Your task to perform on an android device: delete browsing data in the chrome app Image 0: 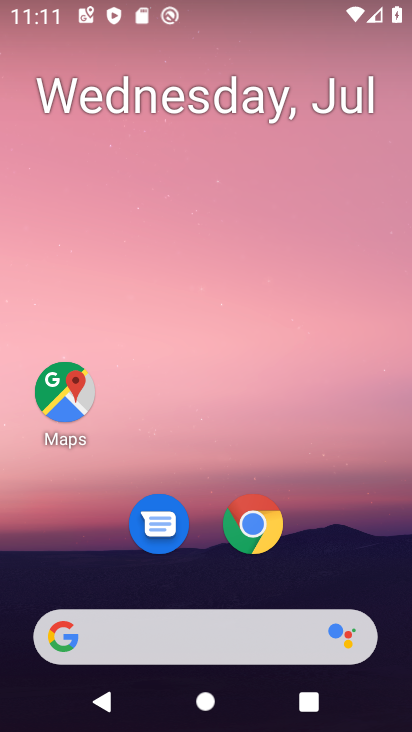
Step 0: click (243, 536)
Your task to perform on an android device: delete browsing data in the chrome app Image 1: 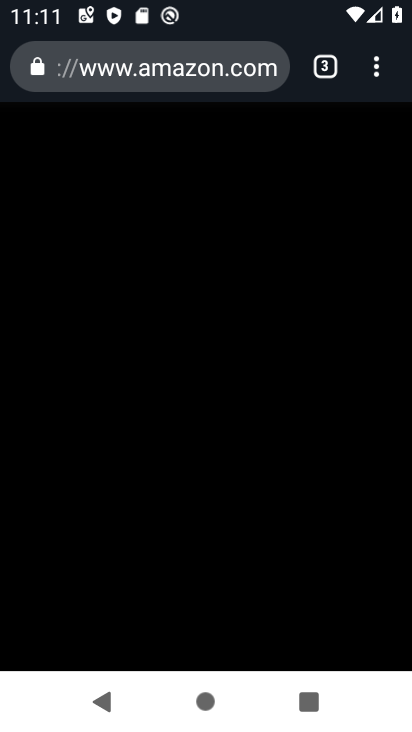
Step 1: drag from (371, 72) to (198, 533)
Your task to perform on an android device: delete browsing data in the chrome app Image 2: 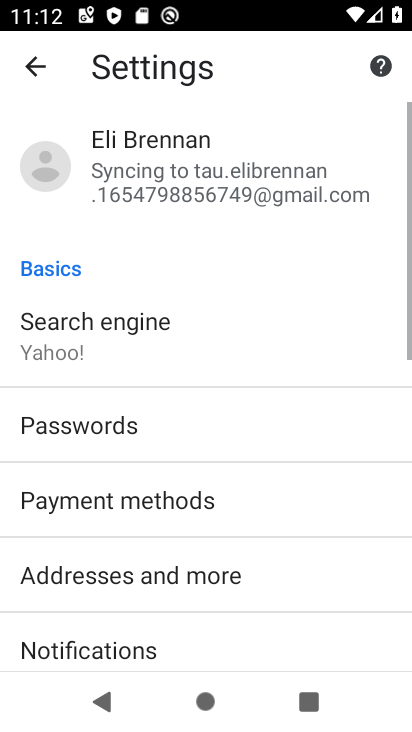
Step 2: drag from (158, 588) to (301, 45)
Your task to perform on an android device: delete browsing data in the chrome app Image 3: 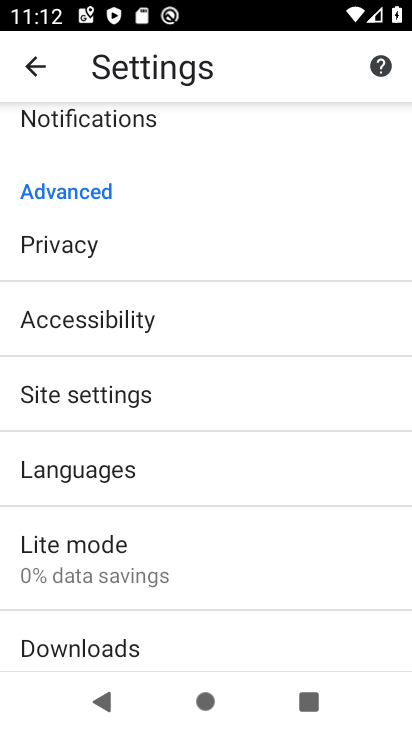
Step 3: click (85, 257)
Your task to perform on an android device: delete browsing data in the chrome app Image 4: 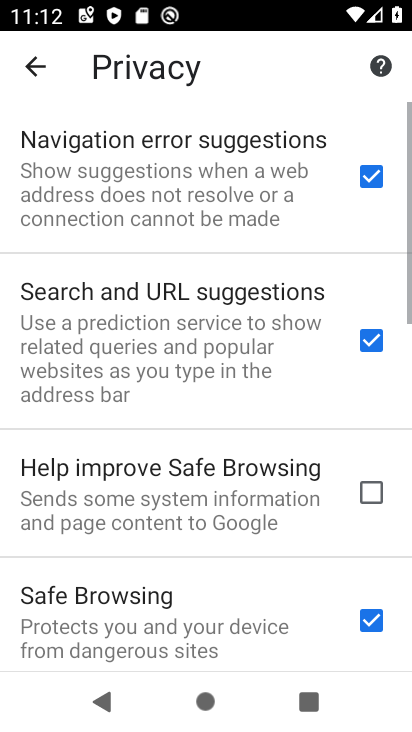
Step 4: drag from (161, 643) to (276, 249)
Your task to perform on an android device: delete browsing data in the chrome app Image 5: 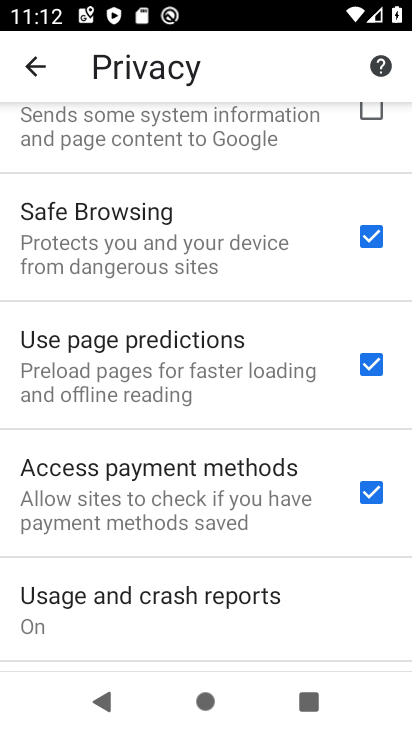
Step 5: drag from (206, 542) to (333, 139)
Your task to perform on an android device: delete browsing data in the chrome app Image 6: 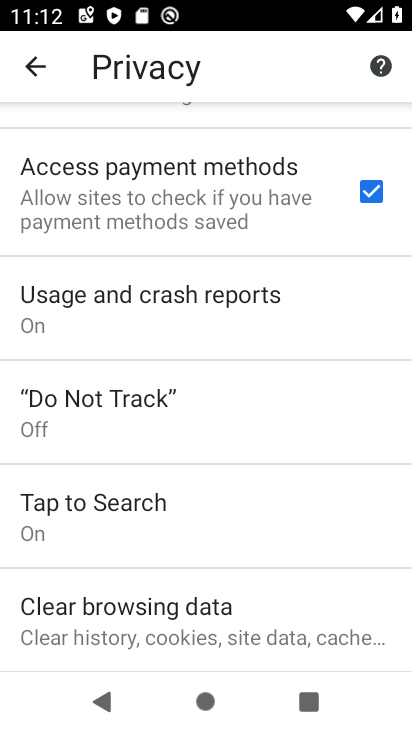
Step 6: click (128, 624)
Your task to perform on an android device: delete browsing data in the chrome app Image 7: 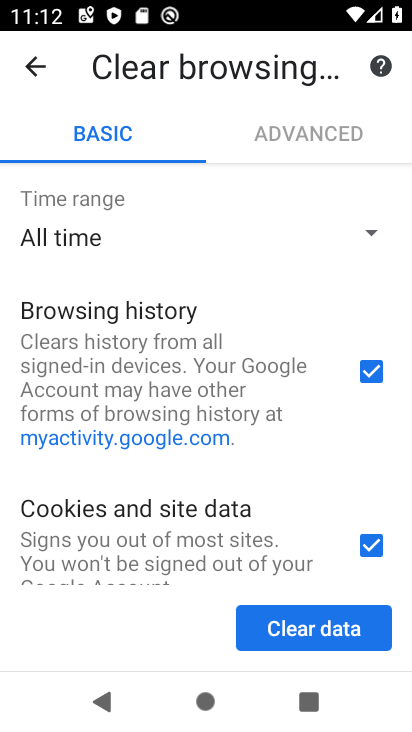
Step 7: click (311, 628)
Your task to perform on an android device: delete browsing data in the chrome app Image 8: 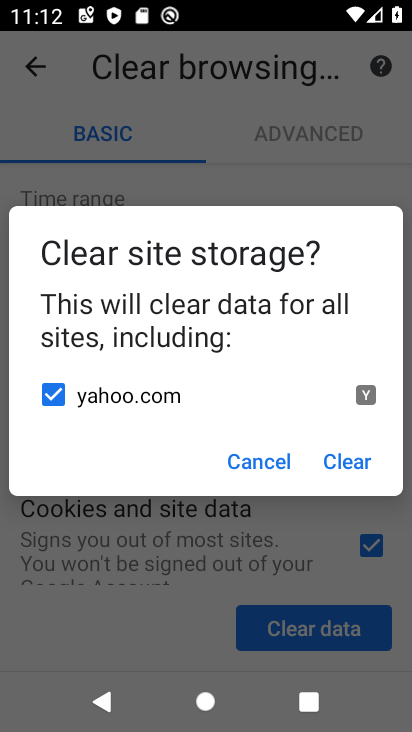
Step 8: click (348, 462)
Your task to perform on an android device: delete browsing data in the chrome app Image 9: 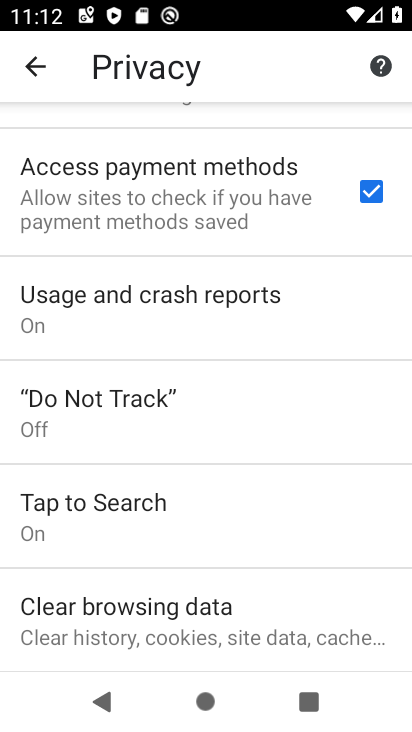
Step 9: task complete